Your task to perform on an android device: Go to network settings Image 0: 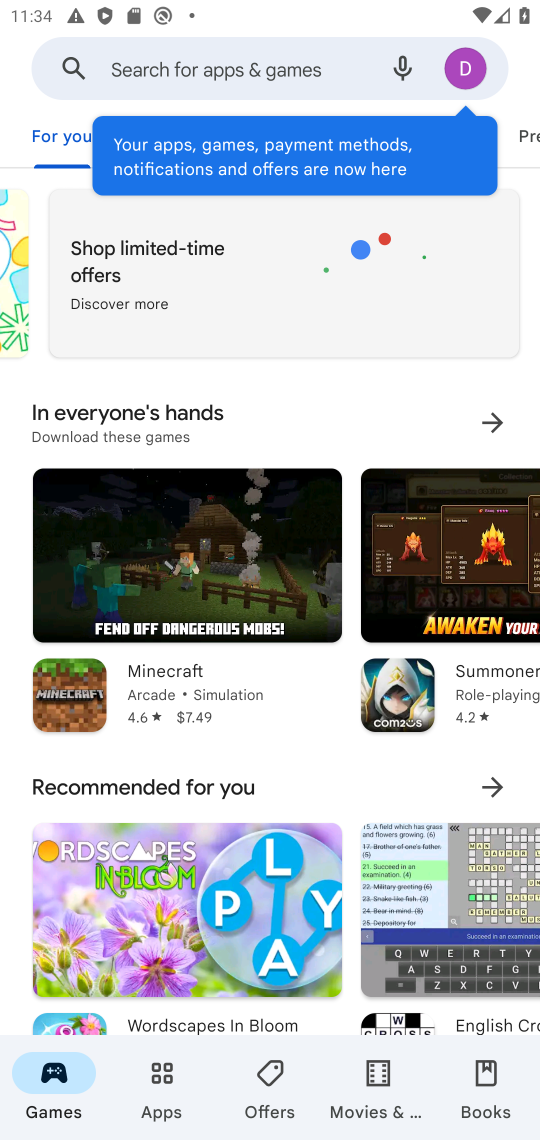
Step 0: press home button
Your task to perform on an android device: Go to network settings Image 1: 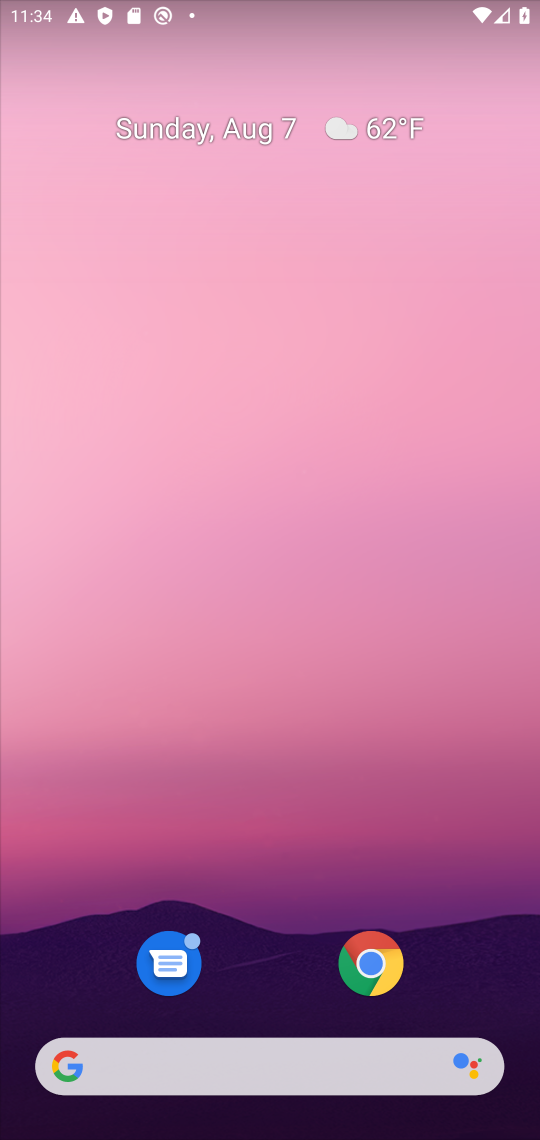
Step 1: drag from (454, 690) to (351, 159)
Your task to perform on an android device: Go to network settings Image 2: 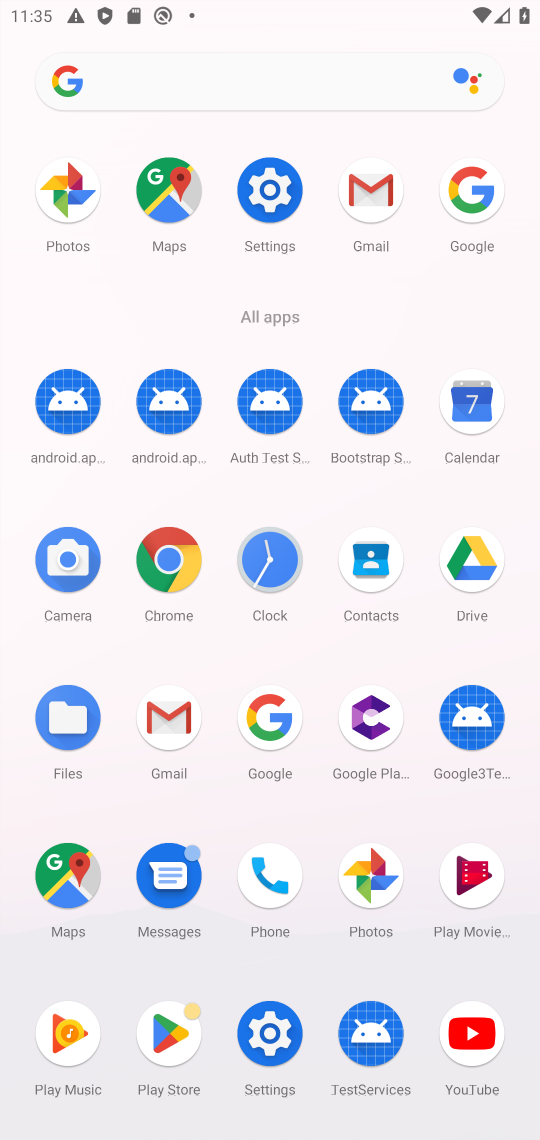
Step 2: click (267, 1027)
Your task to perform on an android device: Go to network settings Image 3: 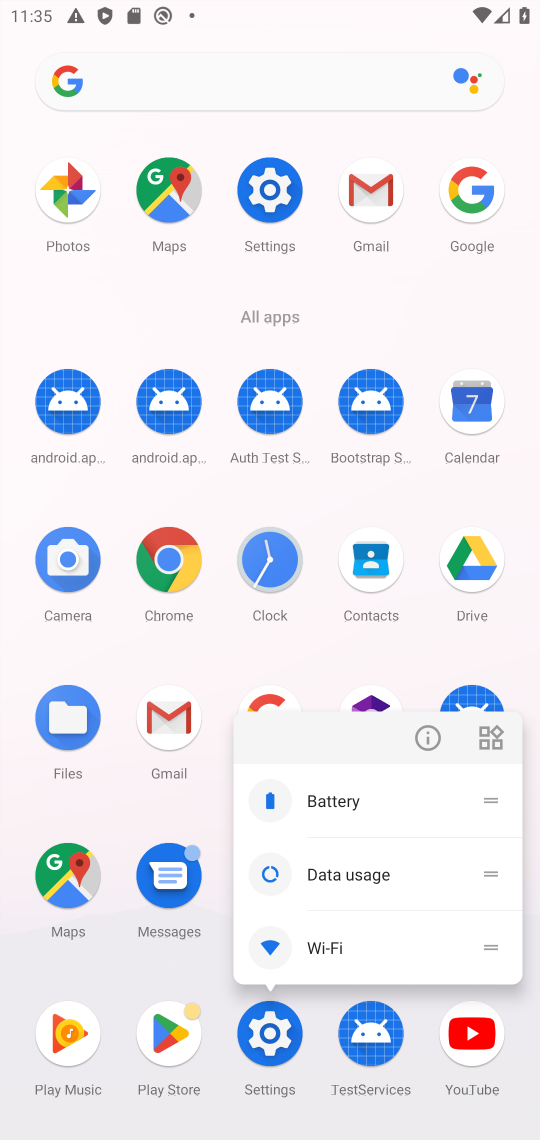
Step 3: click (267, 1027)
Your task to perform on an android device: Go to network settings Image 4: 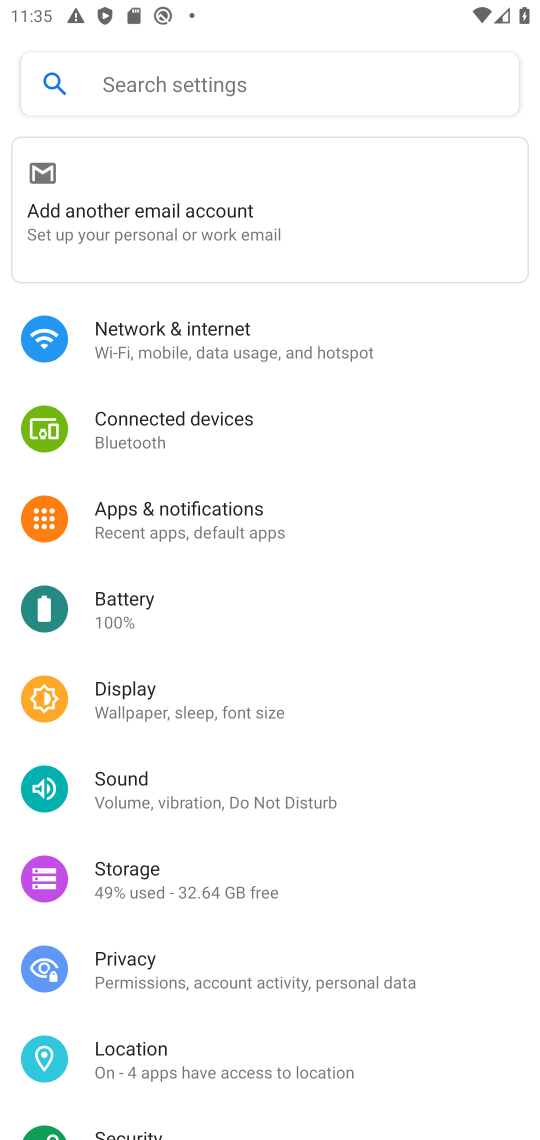
Step 4: click (151, 360)
Your task to perform on an android device: Go to network settings Image 5: 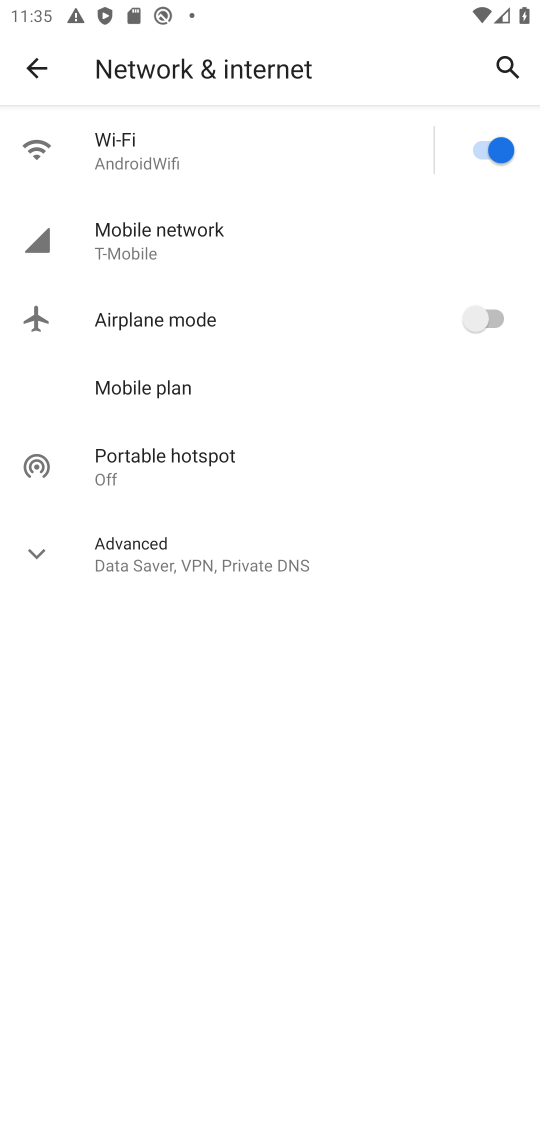
Step 5: task complete